Your task to perform on an android device: Open Android settings Image 0: 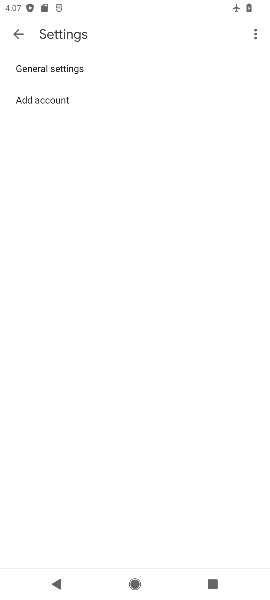
Step 0: press home button
Your task to perform on an android device: Open Android settings Image 1: 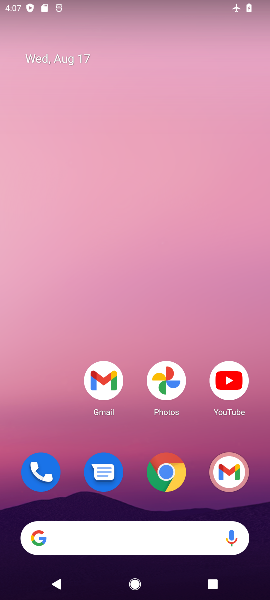
Step 1: drag from (129, 426) to (114, 103)
Your task to perform on an android device: Open Android settings Image 2: 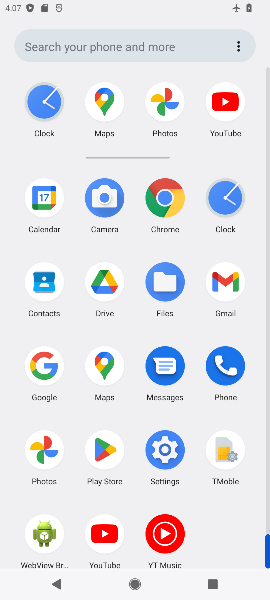
Step 2: click (166, 444)
Your task to perform on an android device: Open Android settings Image 3: 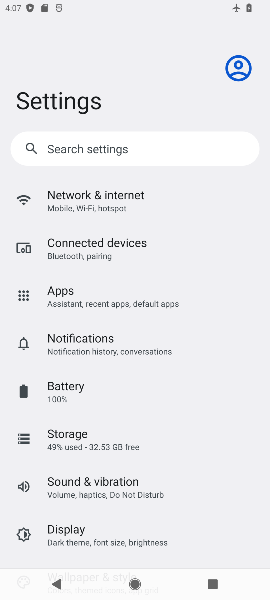
Step 3: task complete